Your task to perform on an android device: show emergency info Image 0: 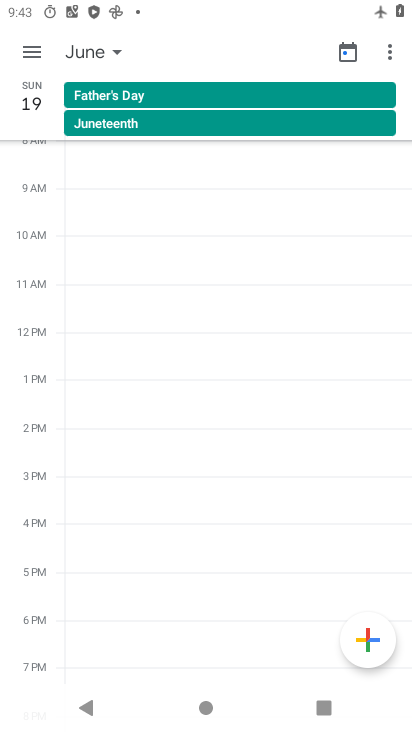
Step 0: press home button
Your task to perform on an android device: show emergency info Image 1: 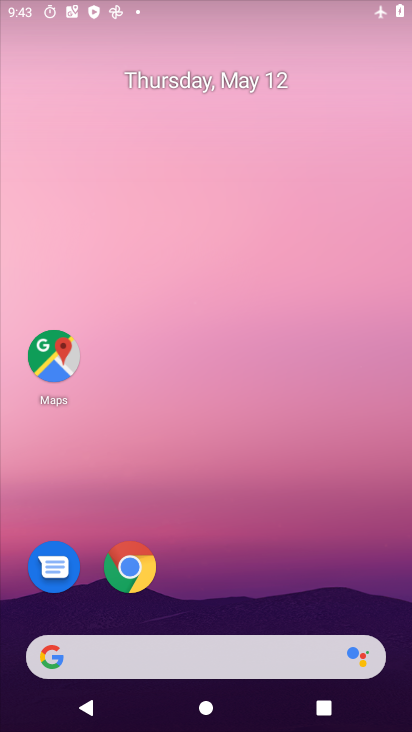
Step 1: drag from (209, 656) to (246, 183)
Your task to perform on an android device: show emergency info Image 2: 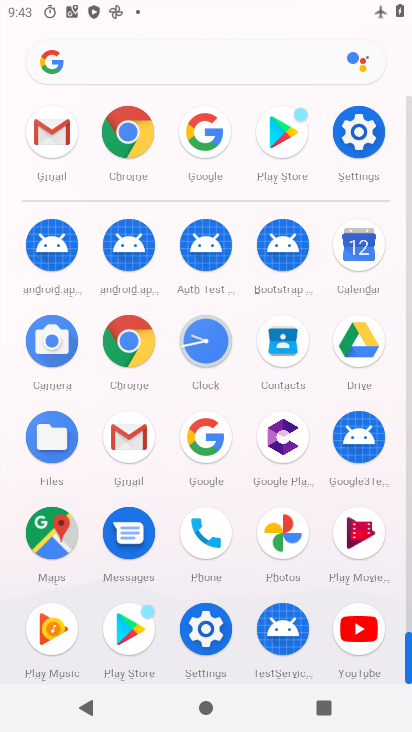
Step 2: click (352, 144)
Your task to perform on an android device: show emergency info Image 3: 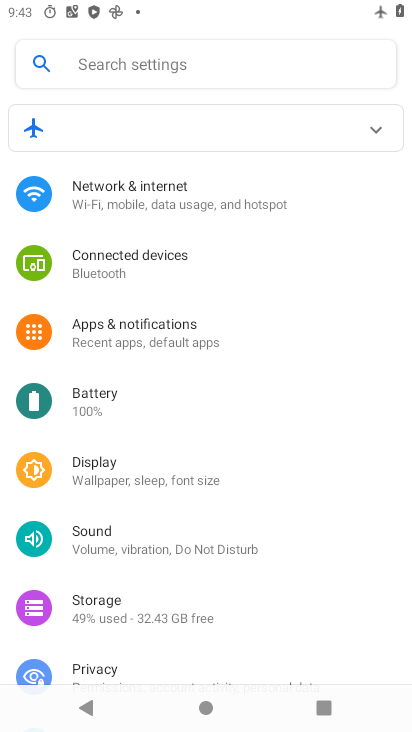
Step 3: drag from (192, 513) to (212, 355)
Your task to perform on an android device: show emergency info Image 4: 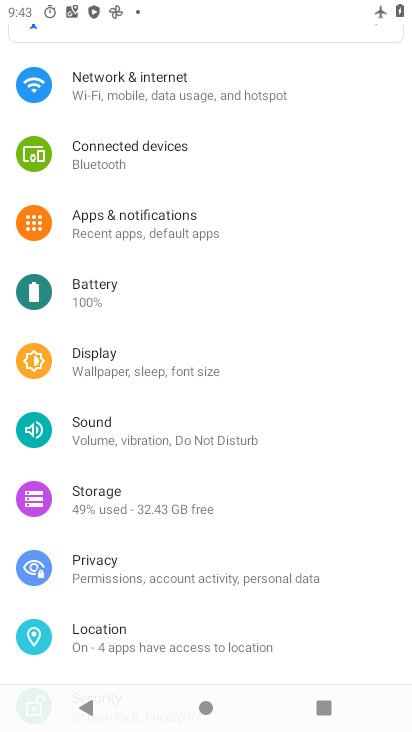
Step 4: drag from (200, 286) to (206, 528)
Your task to perform on an android device: show emergency info Image 5: 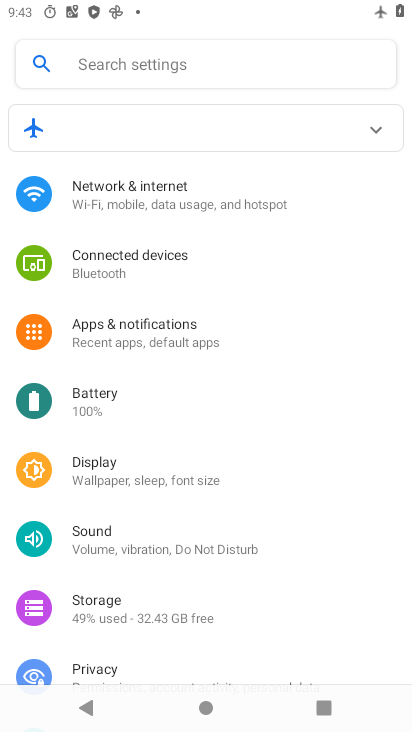
Step 5: drag from (185, 542) to (243, 195)
Your task to perform on an android device: show emergency info Image 6: 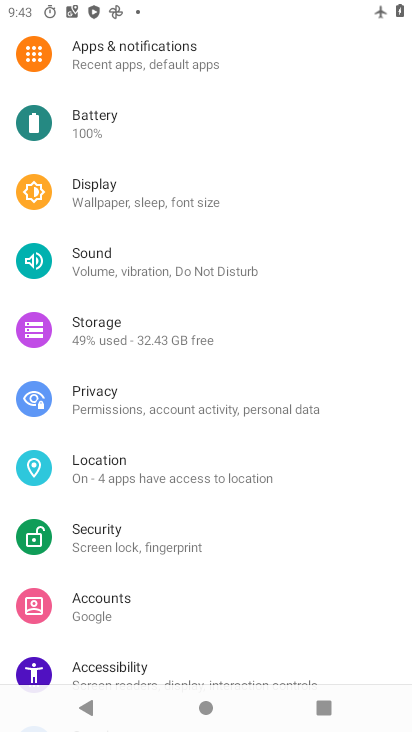
Step 6: drag from (176, 455) to (249, 121)
Your task to perform on an android device: show emergency info Image 7: 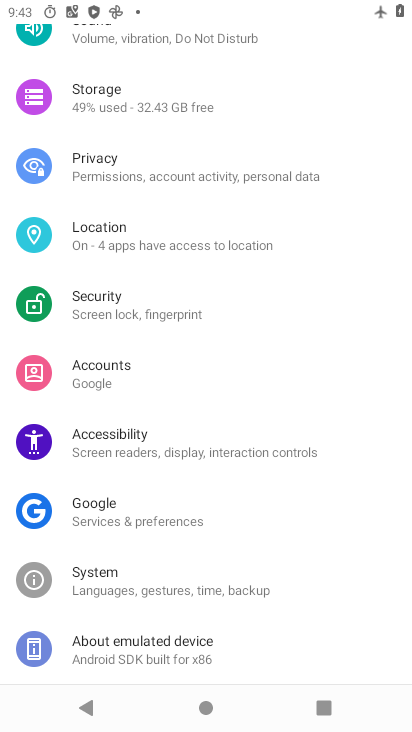
Step 7: click (185, 658)
Your task to perform on an android device: show emergency info Image 8: 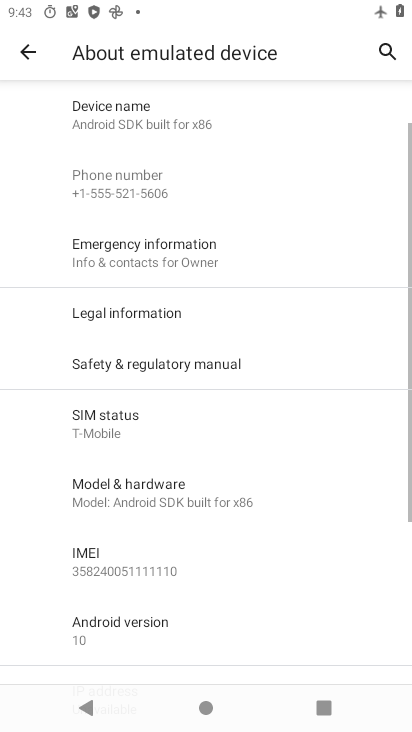
Step 8: click (200, 246)
Your task to perform on an android device: show emergency info Image 9: 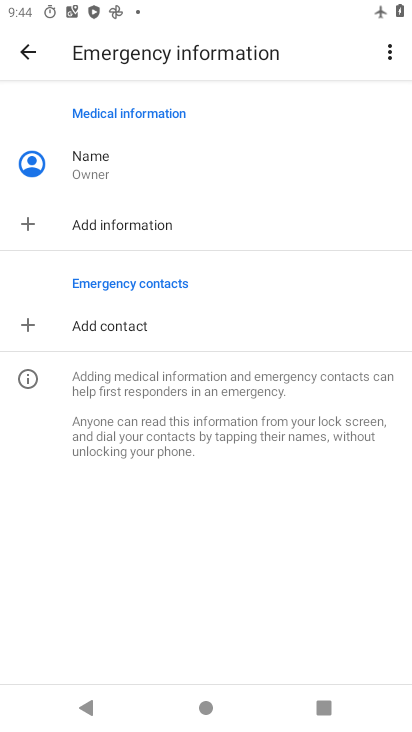
Step 9: task complete